Your task to perform on an android device: set an alarm Image 0: 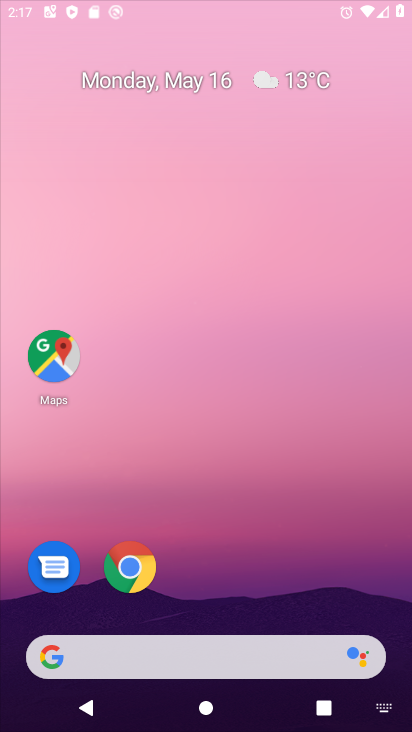
Step 0: press home button
Your task to perform on an android device: set an alarm Image 1: 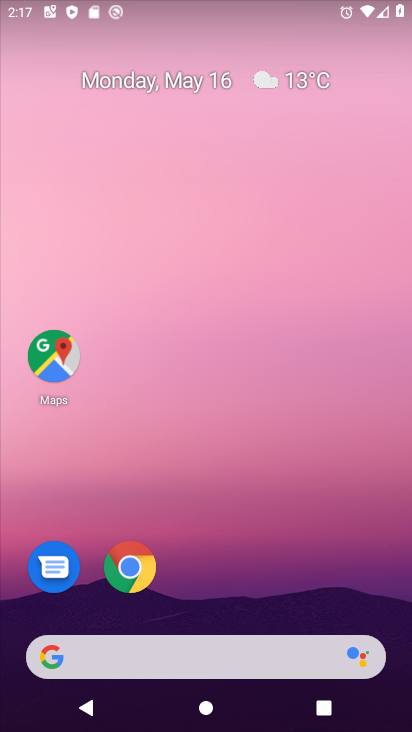
Step 1: drag from (282, 612) to (350, 51)
Your task to perform on an android device: set an alarm Image 2: 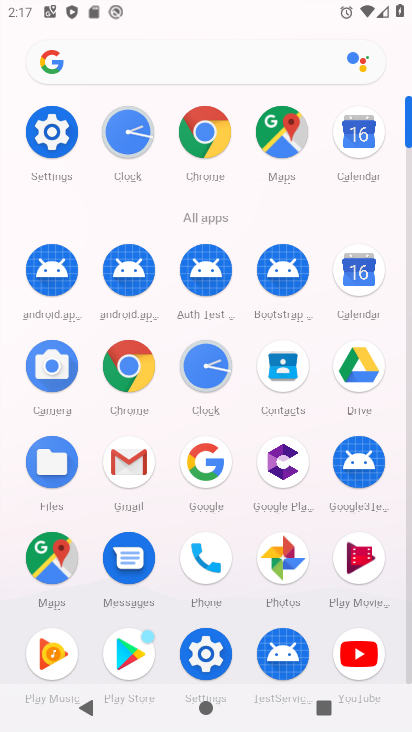
Step 2: click (218, 368)
Your task to perform on an android device: set an alarm Image 3: 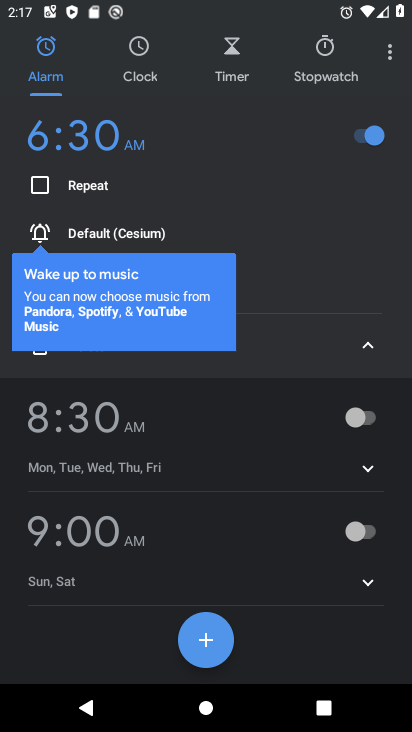
Step 3: click (203, 648)
Your task to perform on an android device: set an alarm Image 4: 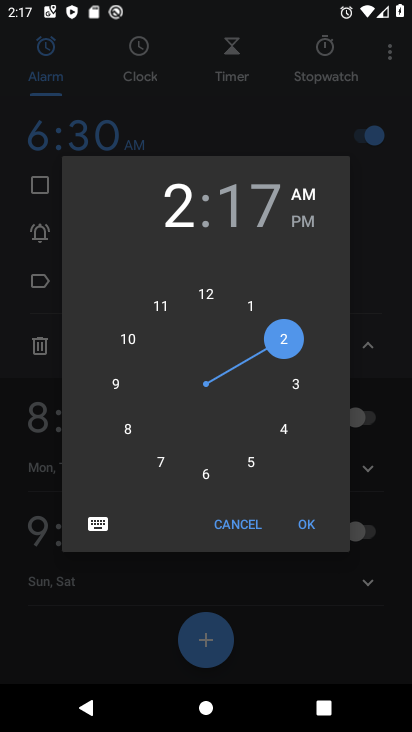
Step 4: click (313, 525)
Your task to perform on an android device: set an alarm Image 5: 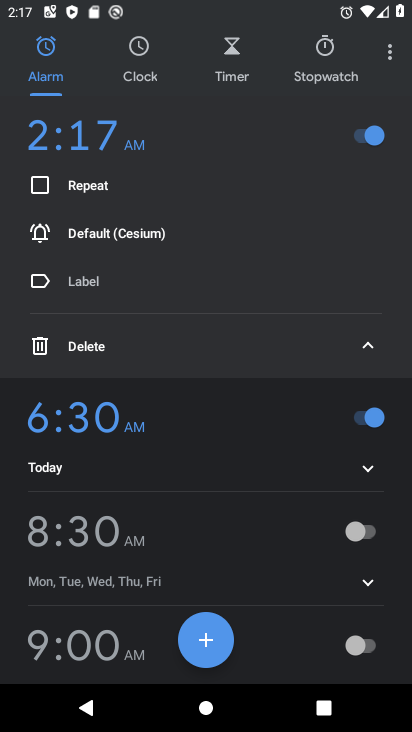
Step 5: task complete